Your task to perform on an android device: turn off translation in the chrome app Image 0: 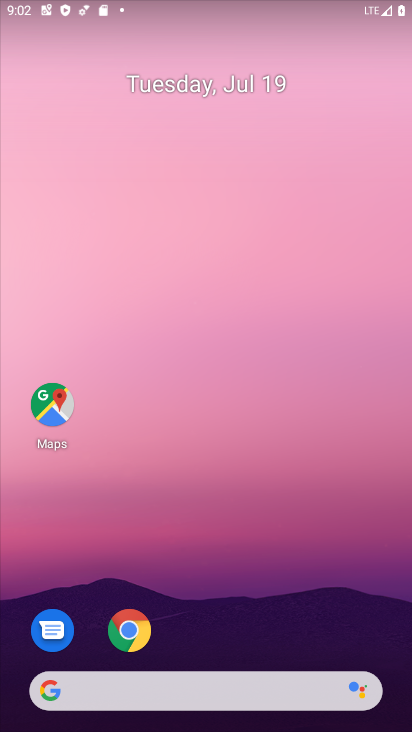
Step 0: click (132, 630)
Your task to perform on an android device: turn off translation in the chrome app Image 1: 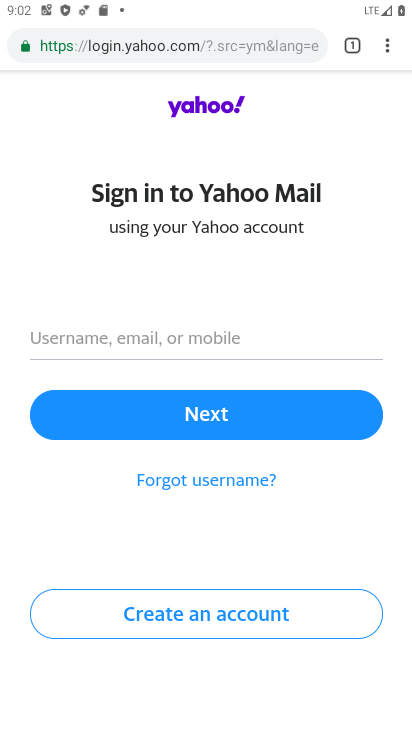
Step 1: click (384, 43)
Your task to perform on an android device: turn off translation in the chrome app Image 2: 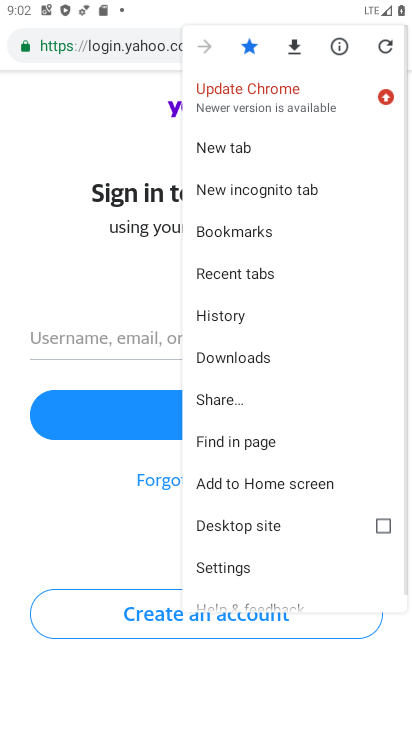
Step 2: click (240, 559)
Your task to perform on an android device: turn off translation in the chrome app Image 3: 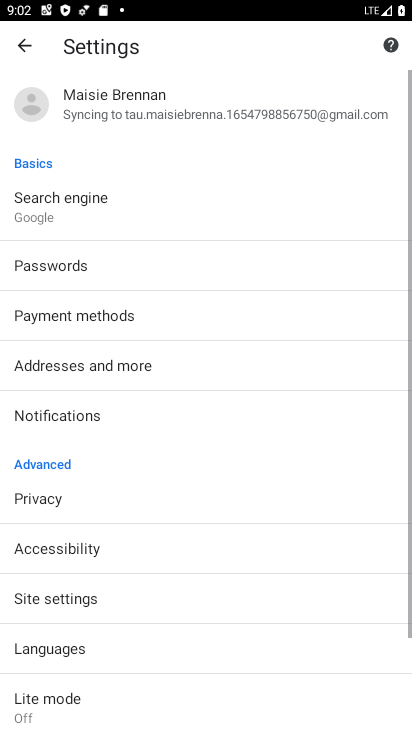
Step 3: click (63, 645)
Your task to perform on an android device: turn off translation in the chrome app Image 4: 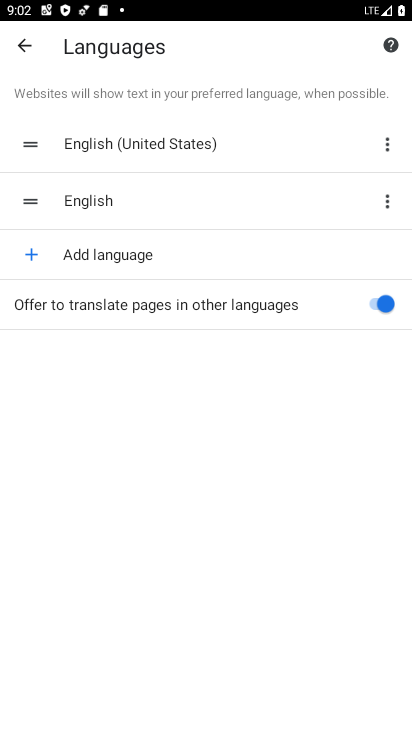
Step 4: click (372, 298)
Your task to perform on an android device: turn off translation in the chrome app Image 5: 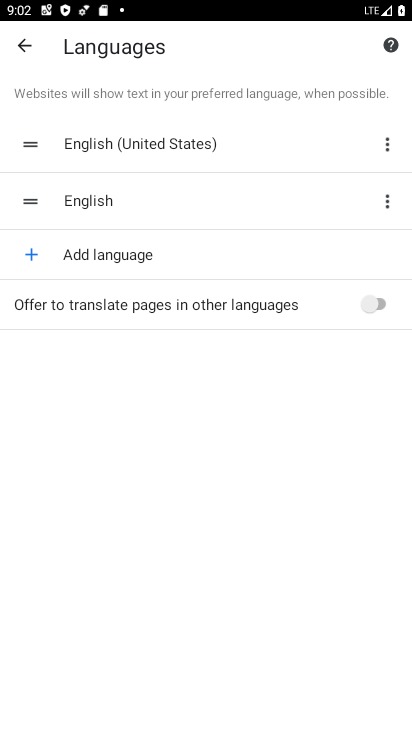
Step 5: task complete